Your task to perform on an android device: How much does a 3 bedroom apartment rent for in Miami? Image 0: 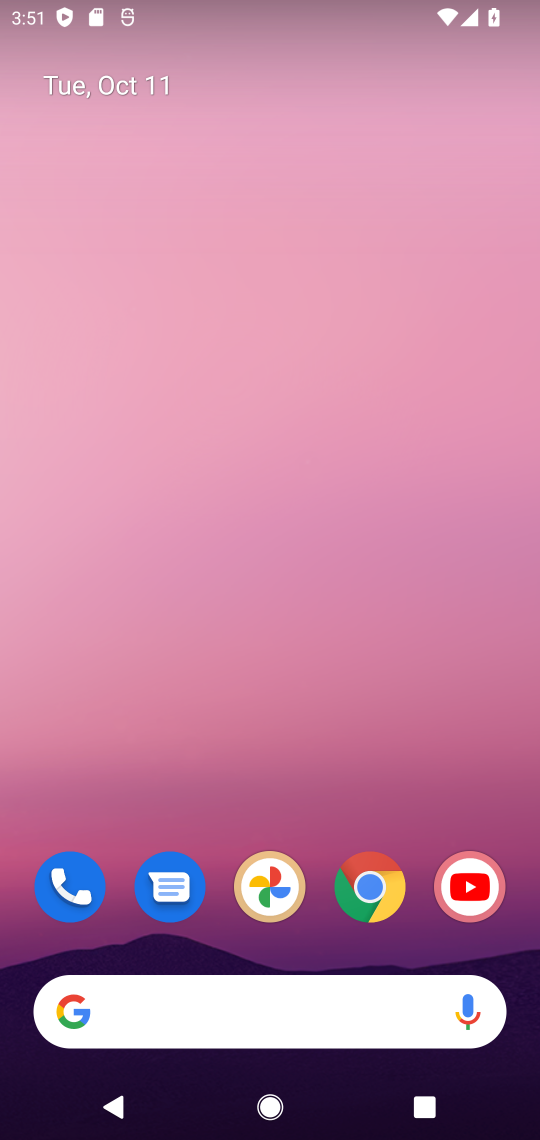
Step 0: click (373, 894)
Your task to perform on an android device: How much does a 3 bedroom apartment rent for in Miami? Image 1: 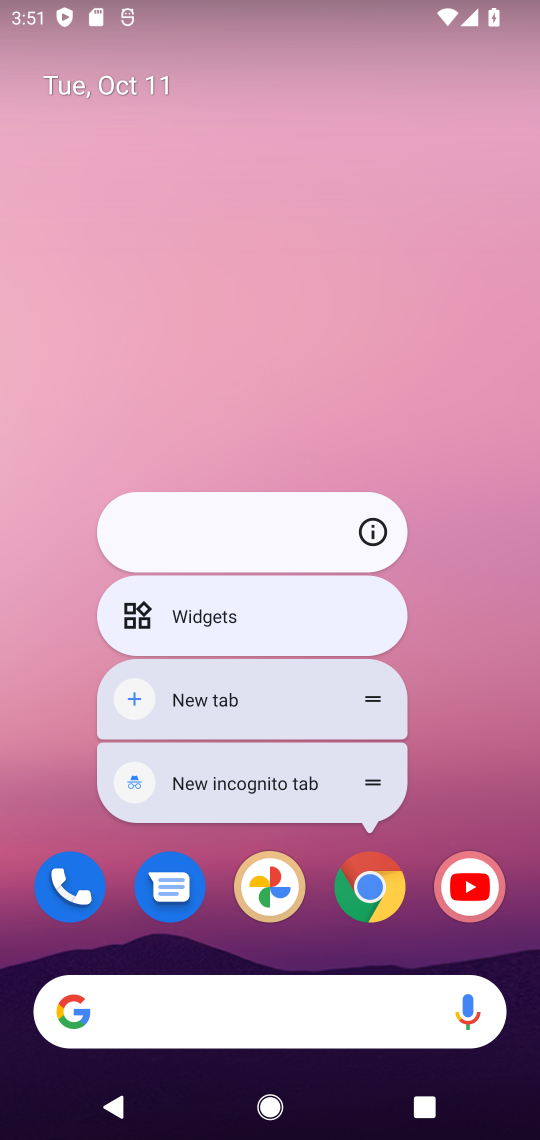
Step 1: click (373, 888)
Your task to perform on an android device: How much does a 3 bedroom apartment rent for in Miami? Image 2: 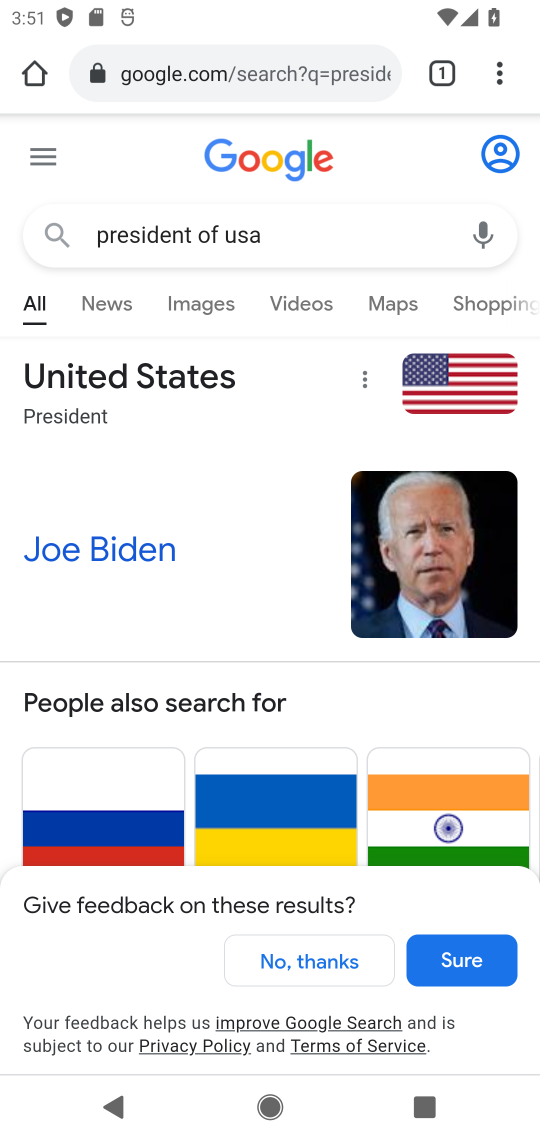
Step 2: click (307, 227)
Your task to perform on an android device: How much does a 3 bedroom apartment rent for in Miami? Image 3: 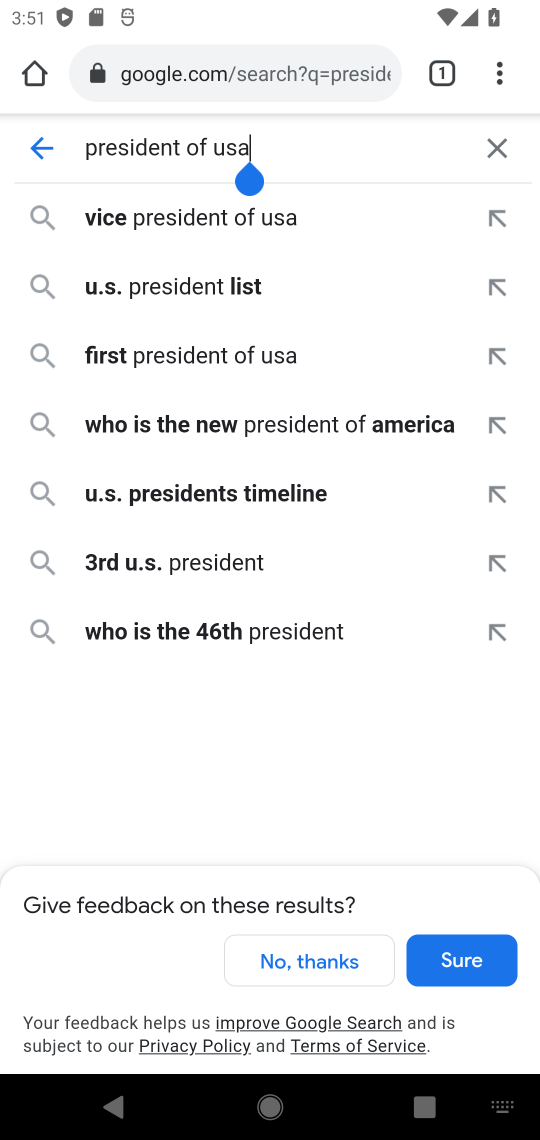
Step 3: click (495, 148)
Your task to perform on an android device: How much does a 3 bedroom apartment rent for in Miami? Image 4: 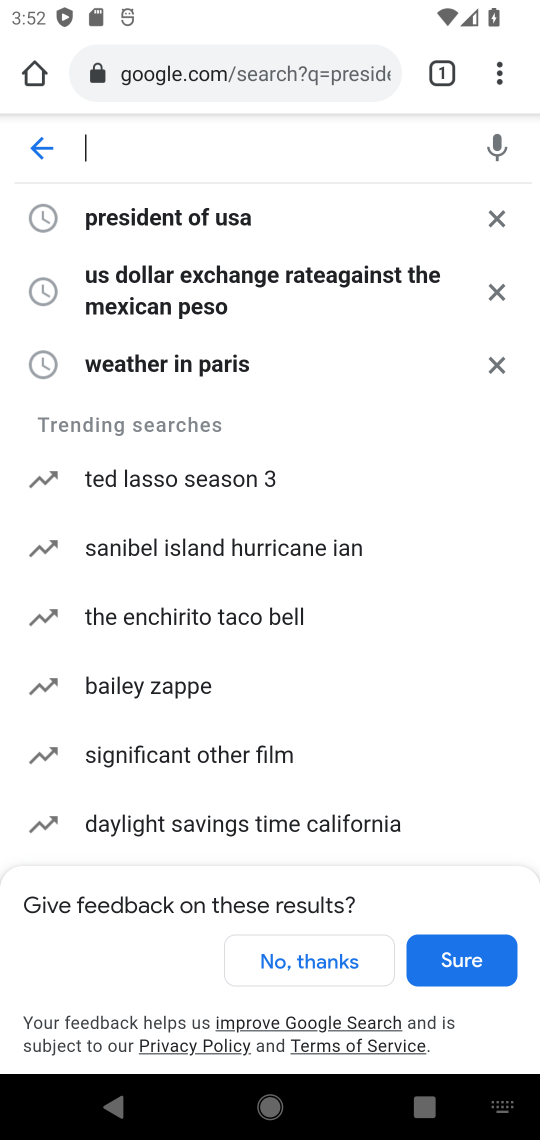
Step 4: type "rent for a 3 bedroom apartment  in miami"
Your task to perform on an android device: How much does a 3 bedroom apartment rent for in Miami? Image 5: 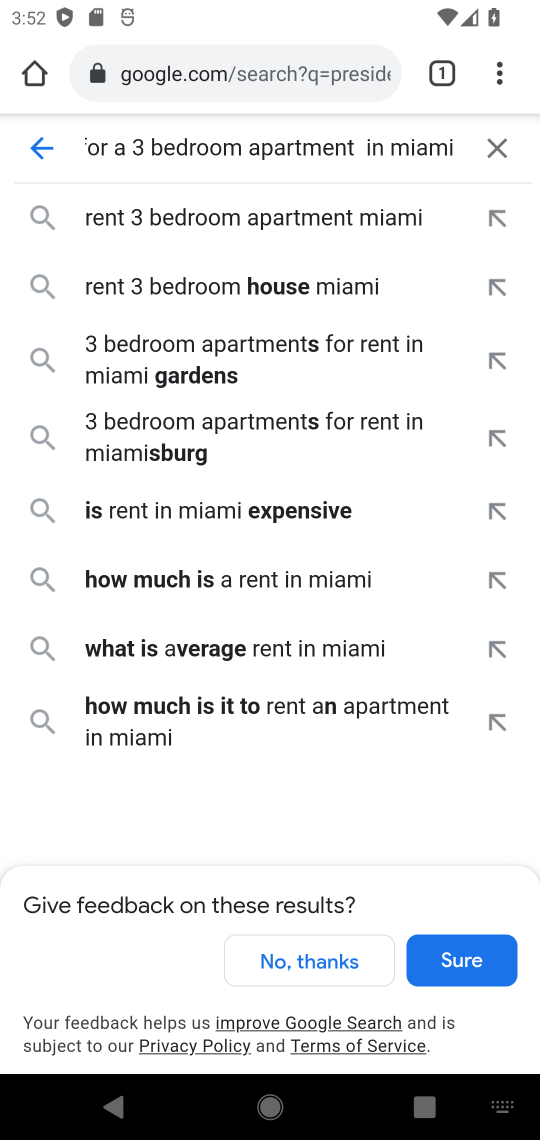
Step 5: click (253, 227)
Your task to perform on an android device: How much does a 3 bedroom apartment rent for in Miami? Image 6: 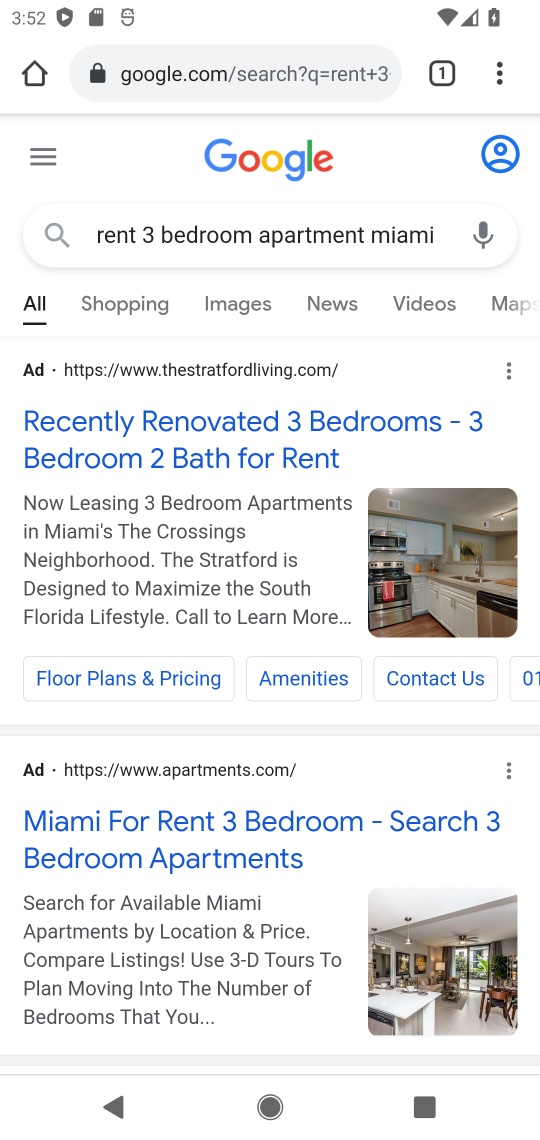
Step 6: click (170, 427)
Your task to perform on an android device: How much does a 3 bedroom apartment rent for in Miami? Image 7: 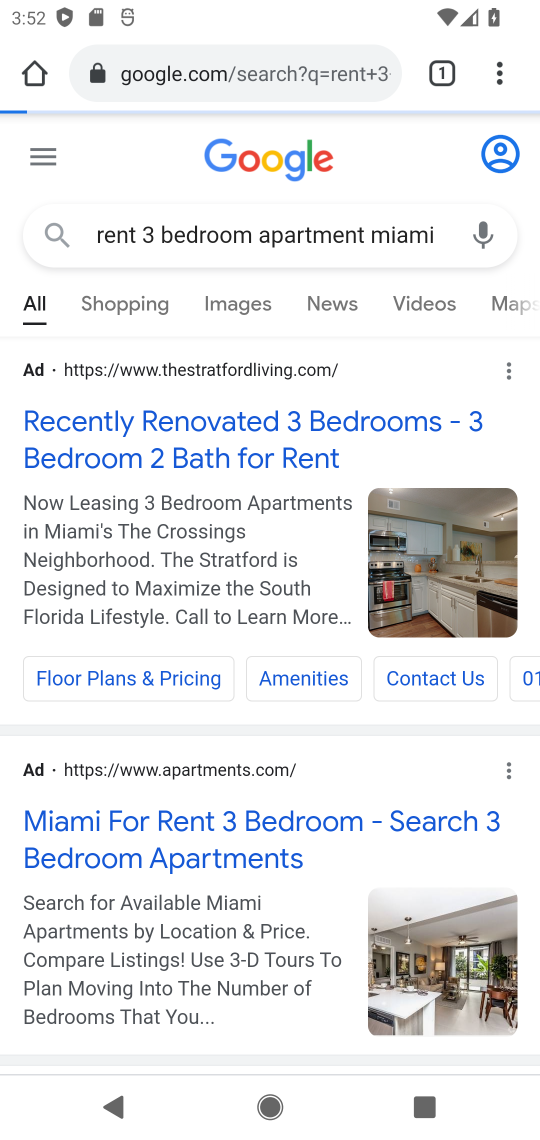
Step 7: click (163, 459)
Your task to perform on an android device: How much does a 3 bedroom apartment rent for in Miami? Image 8: 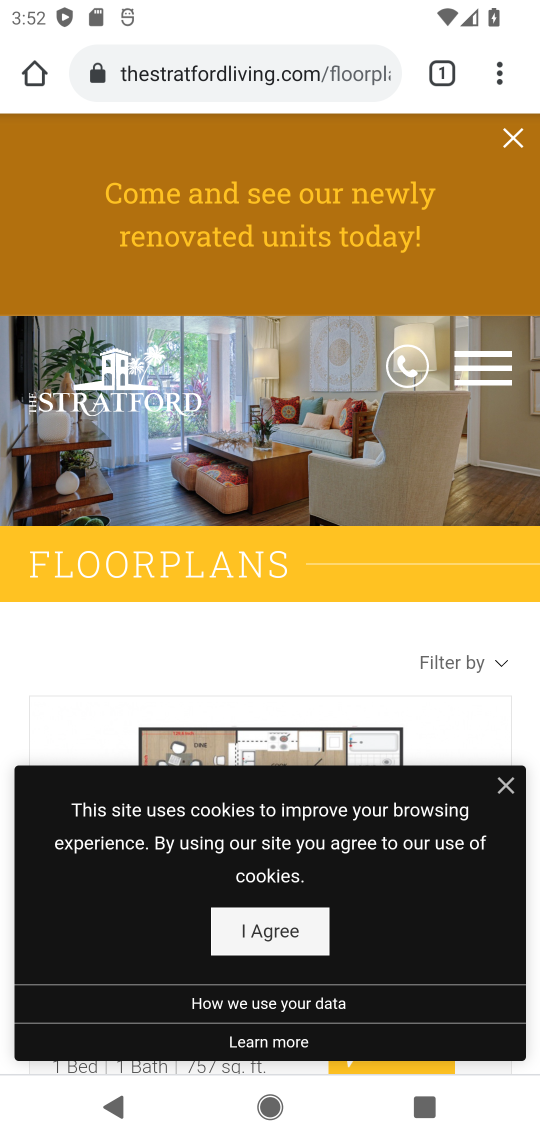
Step 8: task complete